Your task to perform on an android device: Open Youtube and go to "Your channel" Image 0: 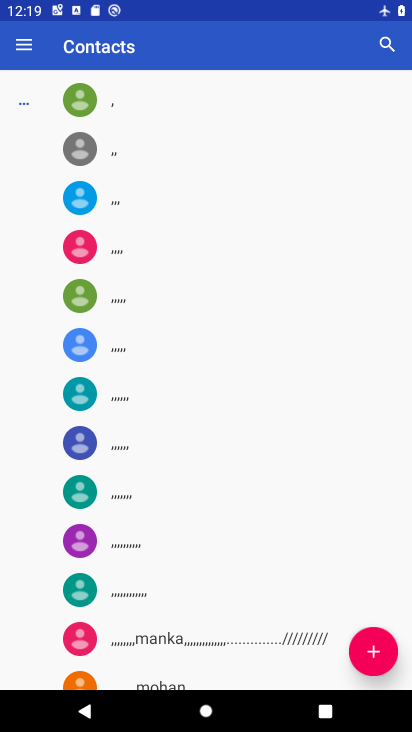
Step 0: press home button
Your task to perform on an android device: Open Youtube and go to "Your channel" Image 1: 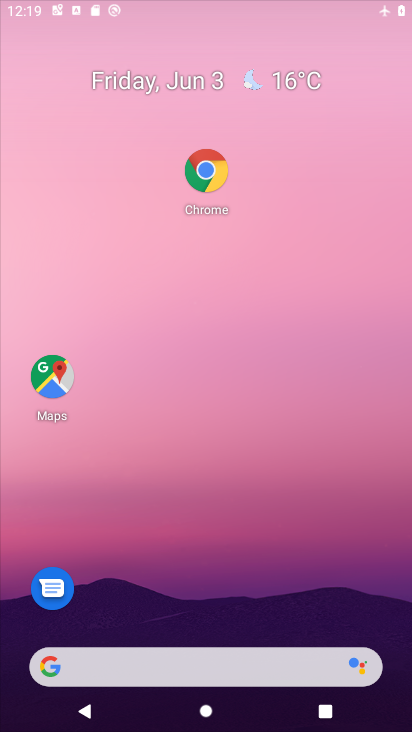
Step 1: drag from (224, 594) to (290, 222)
Your task to perform on an android device: Open Youtube and go to "Your channel" Image 2: 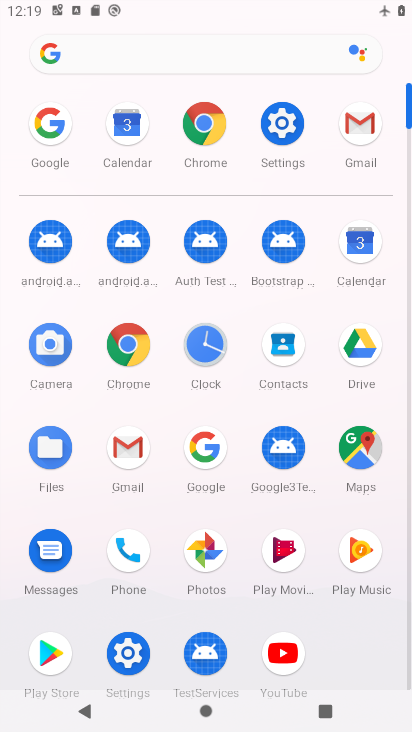
Step 2: click (303, 633)
Your task to perform on an android device: Open Youtube and go to "Your channel" Image 3: 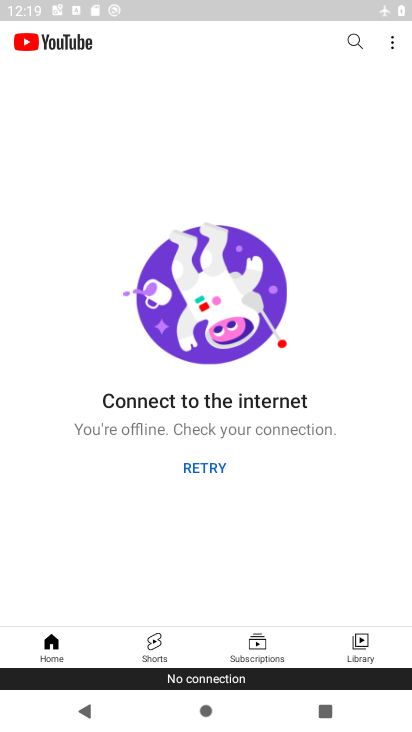
Step 3: click (360, 644)
Your task to perform on an android device: Open Youtube and go to "Your channel" Image 4: 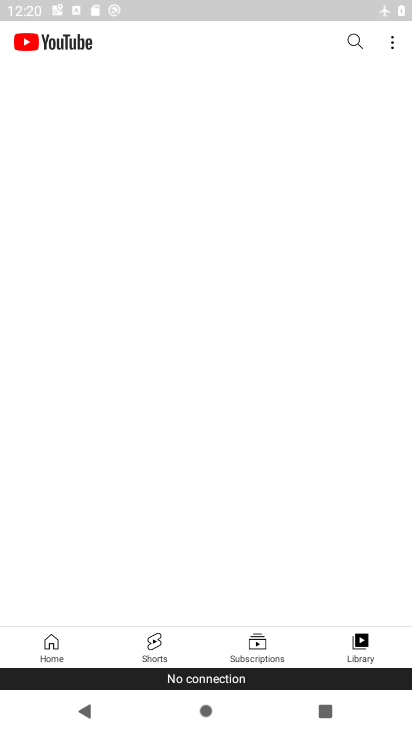
Step 4: task complete